Your task to perform on an android device: turn on javascript in the chrome app Image 0: 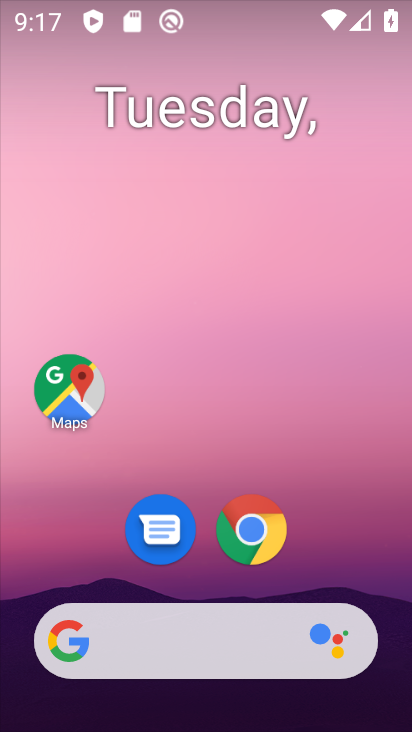
Step 0: drag from (335, 604) to (340, 123)
Your task to perform on an android device: turn on javascript in the chrome app Image 1: 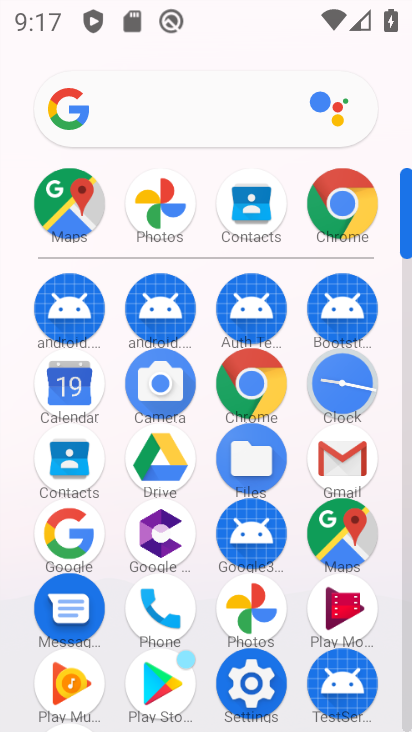
Step 1: click (261, 376)
Your task to perform on an android device: turn on javascript in the chrome app Image 2: 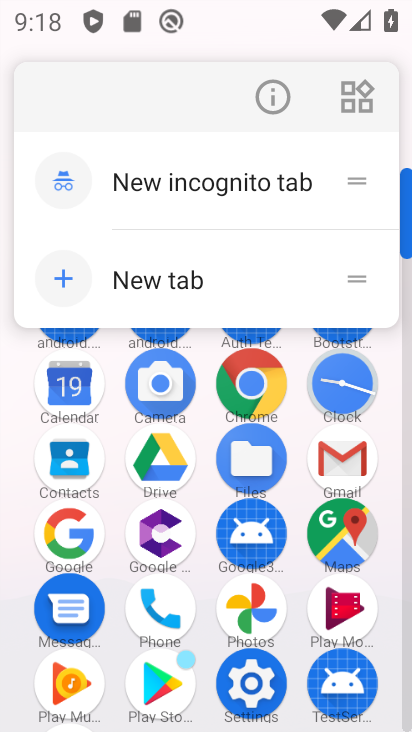
Step 2: click (261, 386)
Your task to perform on an android device: turn on javascript in the chrome app Image 3: 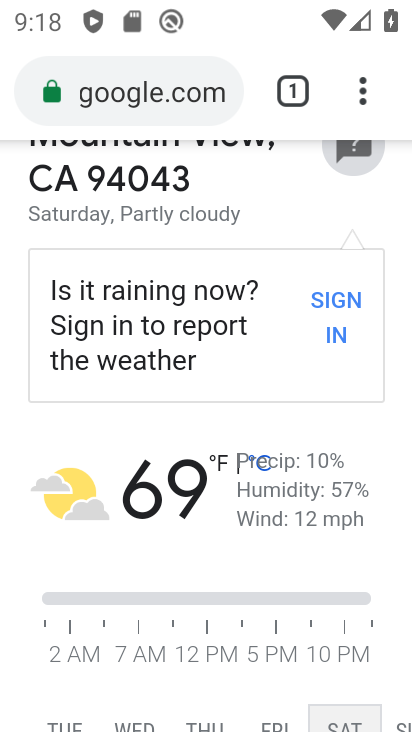
Step 3: click (350, 93)
Your task to perform on an android device: turn on javascript in the chrome app Image 4: 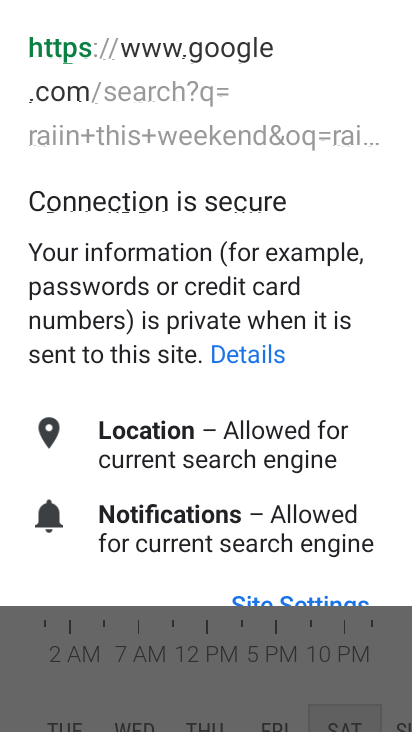
Step 4: click (139, 648)
Your task to perform on an android device: turn on javascript in the chrome app Image 5: 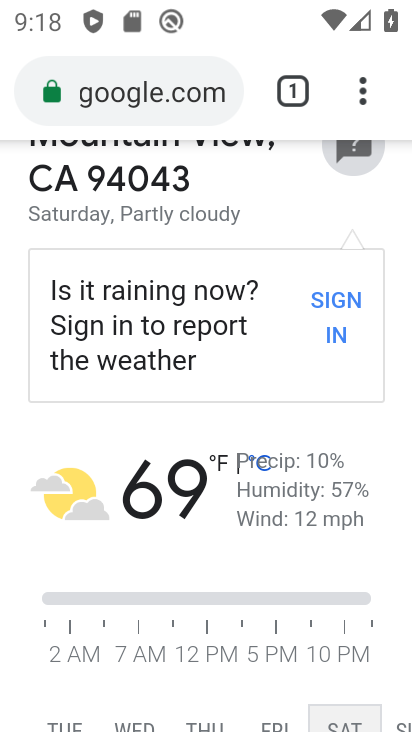
Step 5: click (368, 83)
Your task to perform on an android device: turn on javascript in the chrome app Image 6: 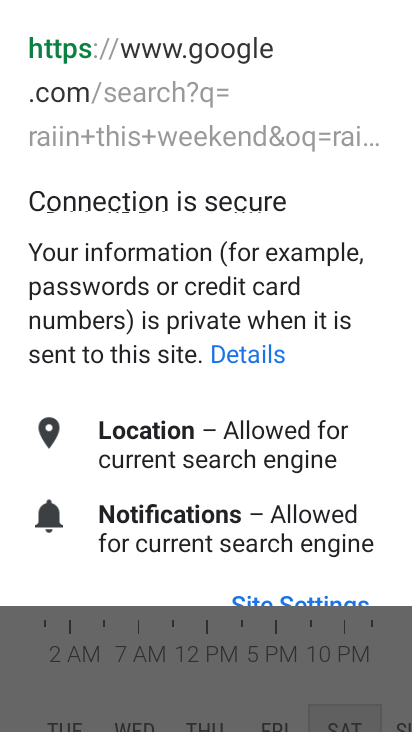
Step 6: click (302, 646)
Your task to perform on an android device: turn on javascript in the chrome app Image 7: 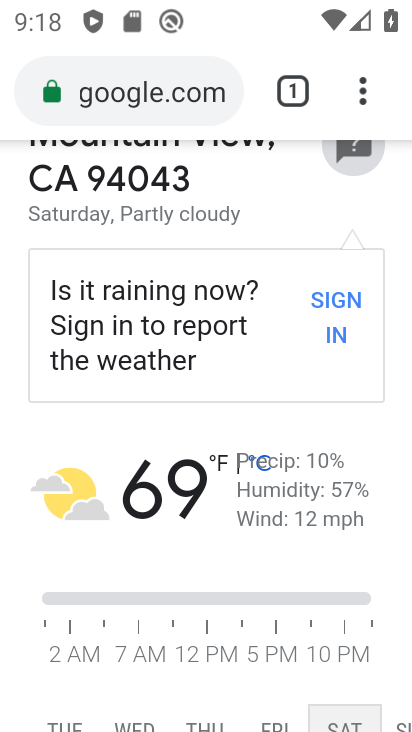
Step 7: click (377, 87)
Your task to perform on an android device: turn on javascript in the chrome app Image 8: 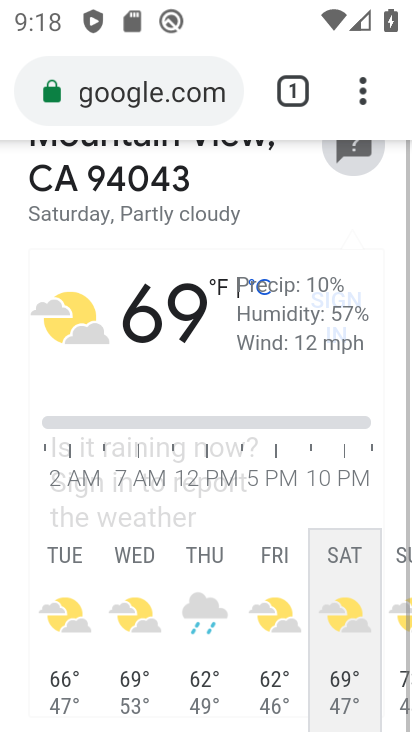
Step 8: click (377, 83)
Your task to perform on an android device: turn on javascript in the chrome app Image 9: 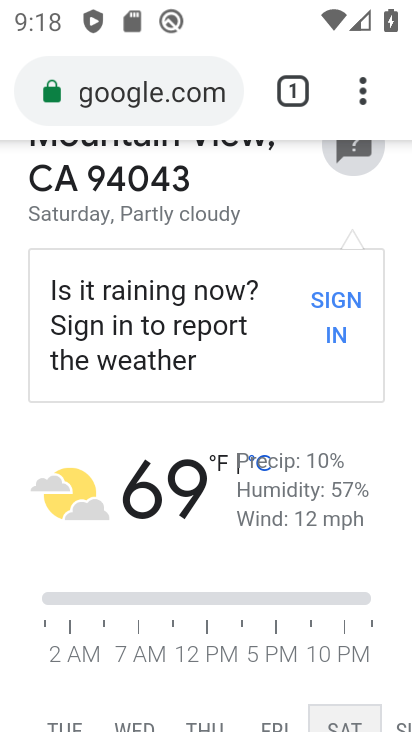
Step 9: click (339, 86)
Your task to perform on an android device: turn on javascript in the chrome app Image 10: 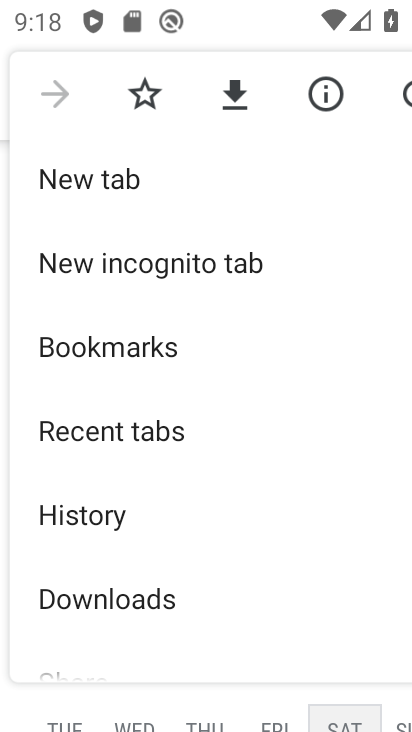
Step 10: drag from (315, 618) to (303, 127)
Your task to perform on an android device: turn on javascript in the chrome app Image 11: 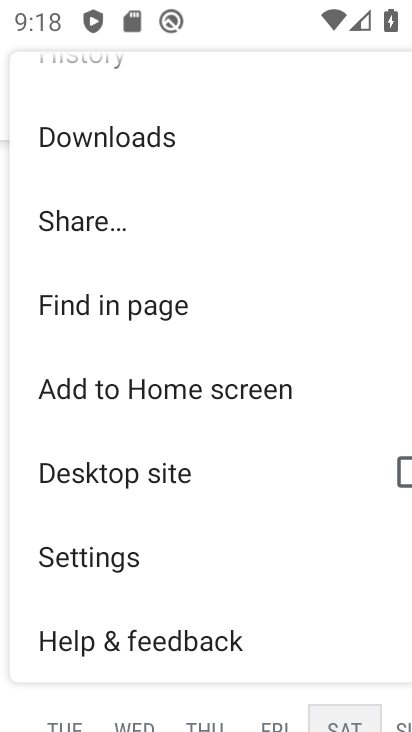
Step 11: click (202, 567)
Your task to perform on an android device: turn on javascript in the chrome app Image 12: 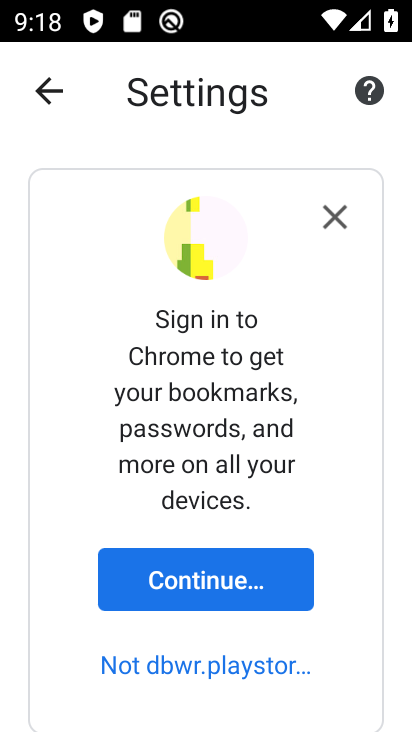
Step 12: drag from (223, 672) to (257, 226)
Your task to perform on an android device: turn on javascript in the chrome app Image 13: 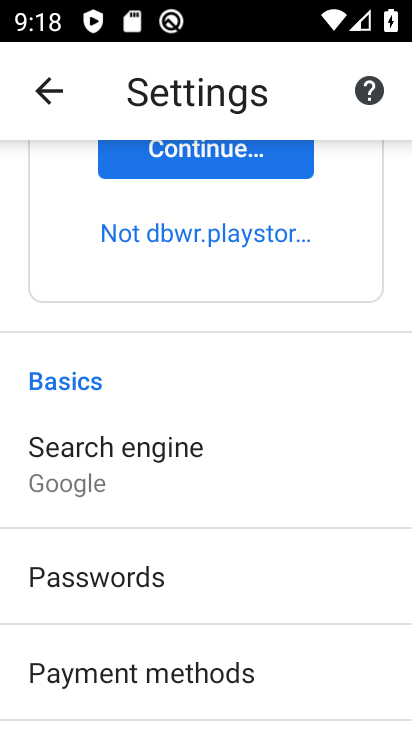
Step 13: drag from (194, 671) to (249, 399)
Your task to perform on an android device: turn on javascript in the chrome app Image 14: 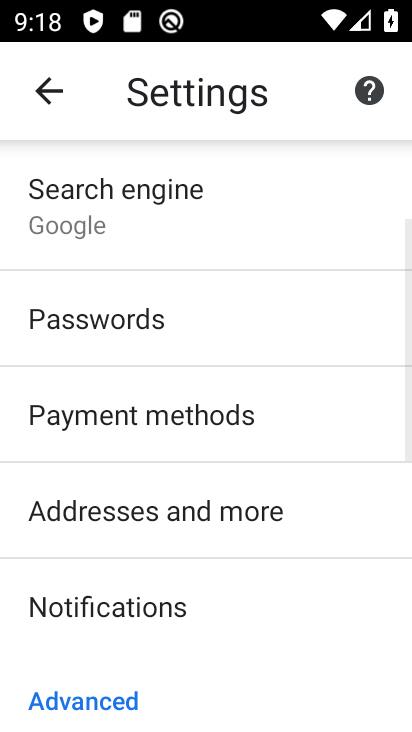
Step 14: drag from (222, 684) to (241, 461)
Your task to perform on an android device: turn on javascript in the chrome app Image 15: 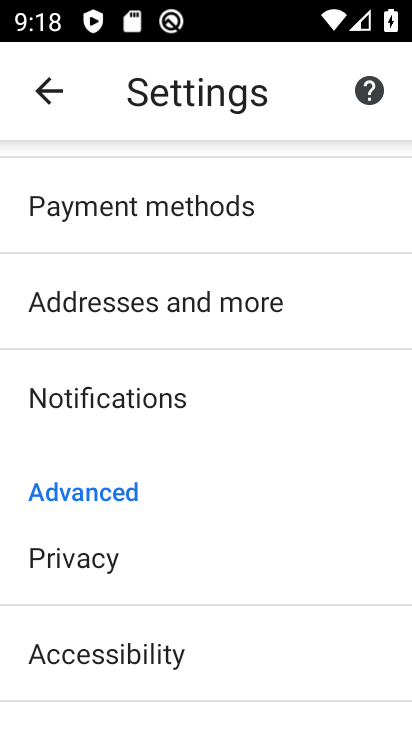
Step 15: drag from (218, 670) to (239, 564)
Your task to perform on an android device: turn on javascript in the chrome app Image 16: 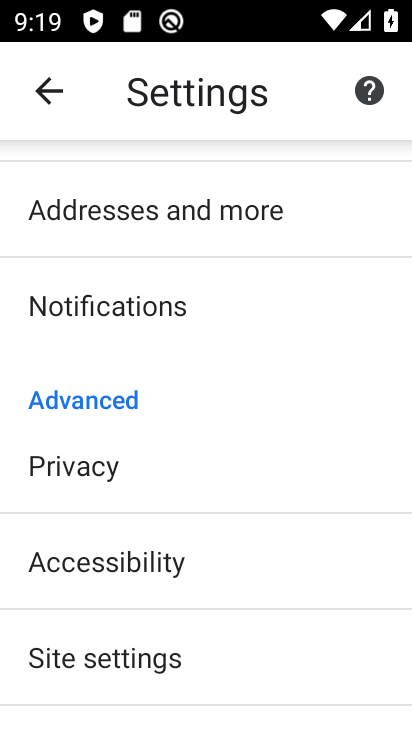
Step 16: click (149, 653)
Your task to perform on an android device: turn on javascript in the chrome app Image 17: 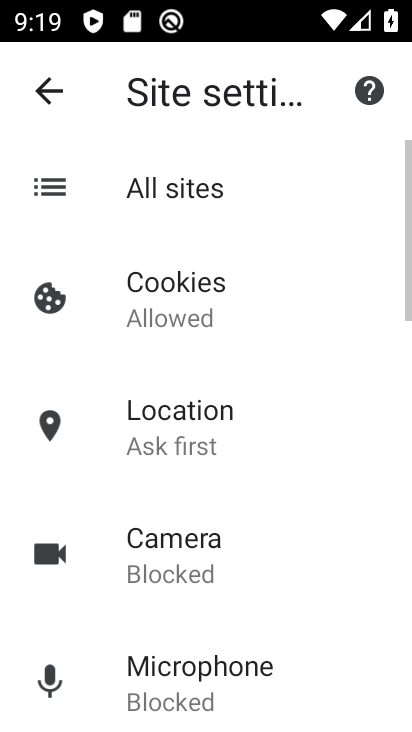
Step 17: drag from (238, 654) to (204, 229)
Your task to perform on an android device: turn on javascript in the chrome app Image 18: 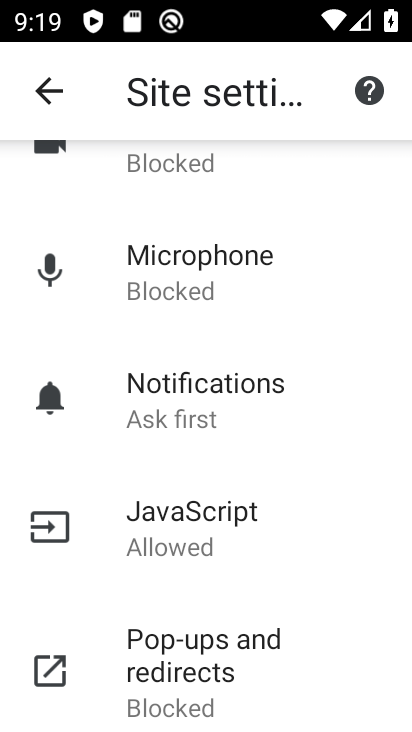
Step 18: click (205, 528)
Your task to perform on an android device: turn on javascript in the chrome app Image 19: 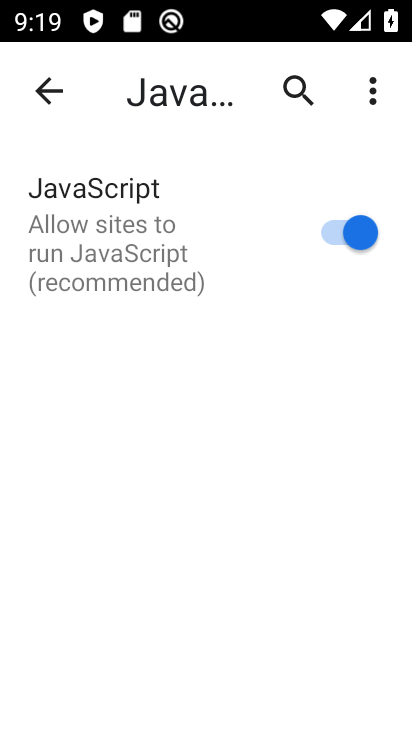
Step 19: task complete